Your task to perform on an android device: turn off smart reply in the gmail app Image 0: 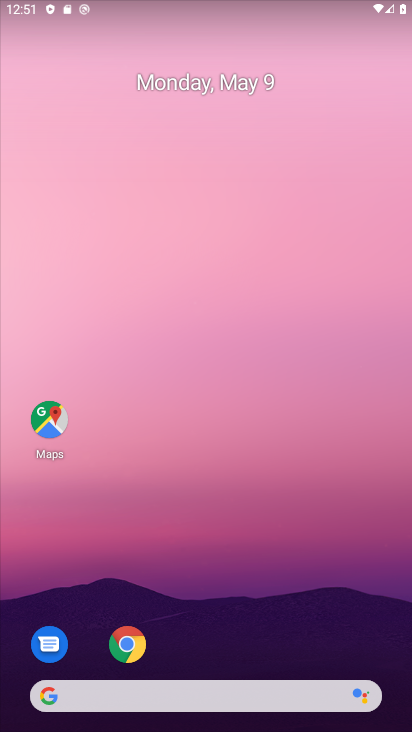
Step 0: drag from (257, 647) to (169, 89)
Your task to perform on an android device: turn off smart reply in the gmail app Image 1: 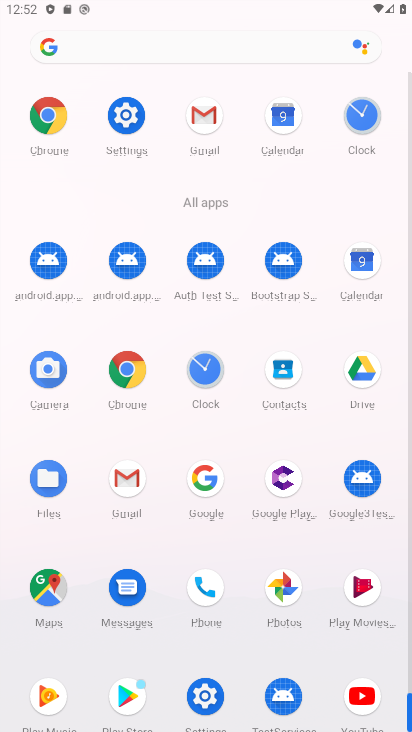
Step 1: click (197, 158)
Your task to perform on an android device: turn off smart reply in the gmail app Image 2: 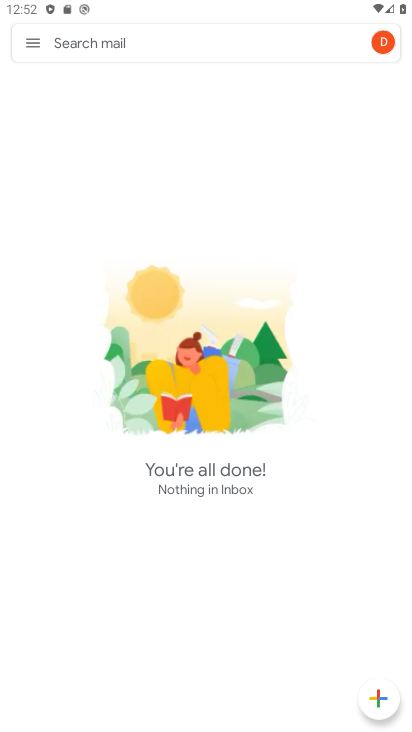
Step 2: click (36, 43)
Your task to perform on an android device: turn off smart reply in the gmail app Image 3: 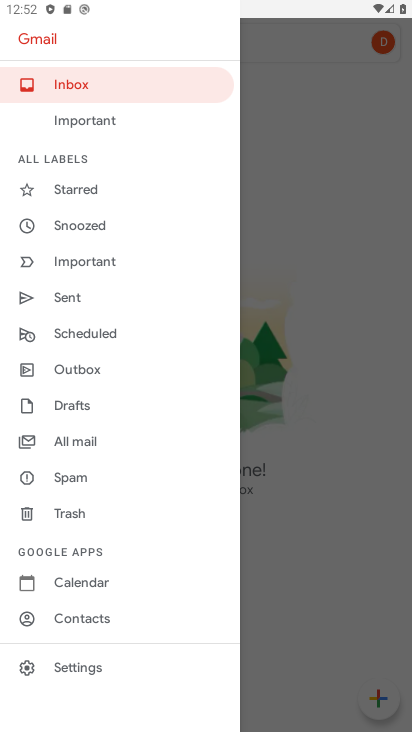
Step 3: click (78, 666)
Your task to perform on an android device: turn off smart reply in the gmail app Image 4: 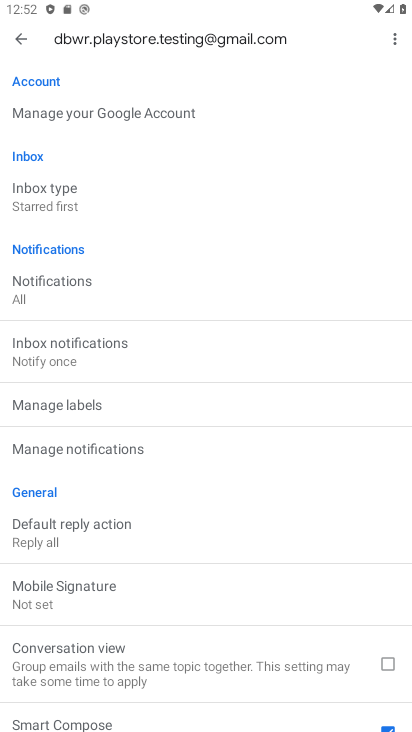
Step 4: drag from (249, 560) to (249, 465)
Your task to perform on an android device: turn off smart reply in the gmail app Image 5: 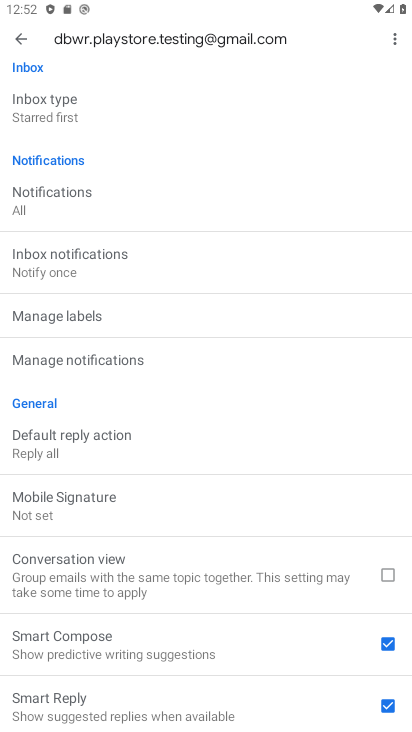
Step 5: click (380, 709)
Your task to perform on an android device: turn off smart reply in the gmail app Image 6: 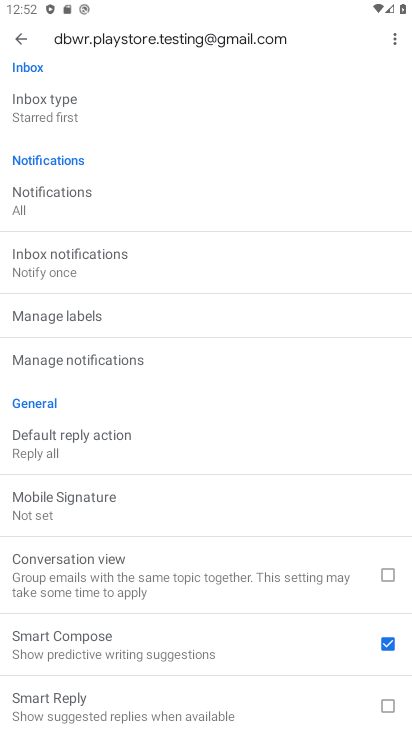
Step 6: task complete